Your task to perform on an android device: make emails show in primary in the gmail app Image 0: 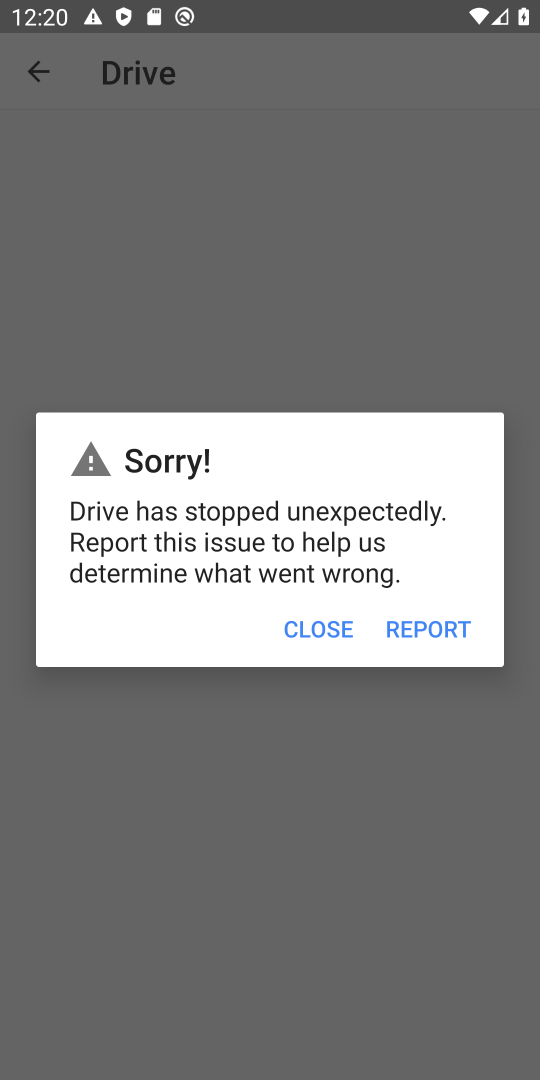
Step 0: press home button
Your task to perform on an android device: make emails show in primary in the gmail app Image 1: 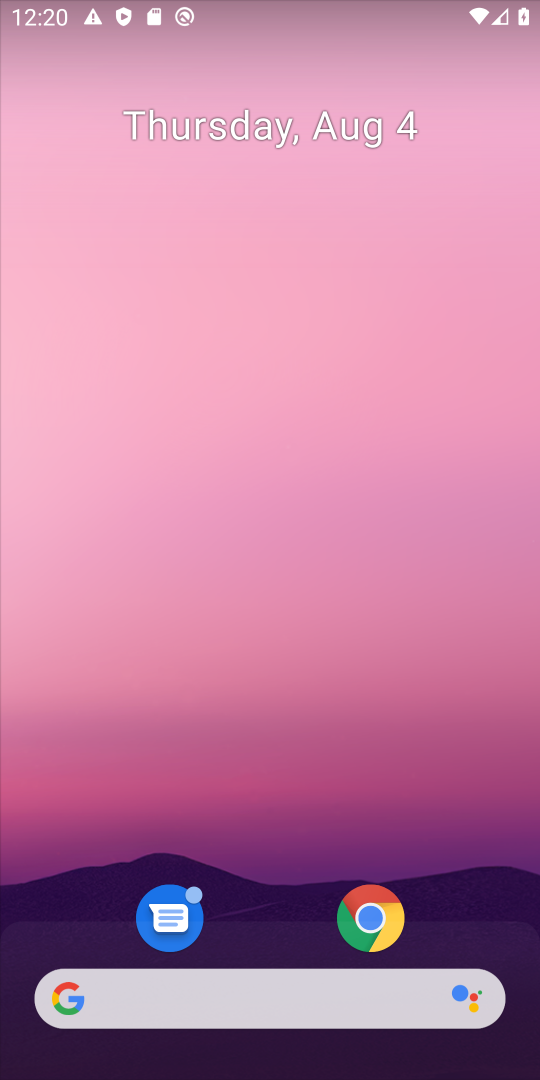
Step 1: drag from (269, 911) to (299, 171)
Your task to perform on an android device: make emails show in primary in the gmail app Image 2: 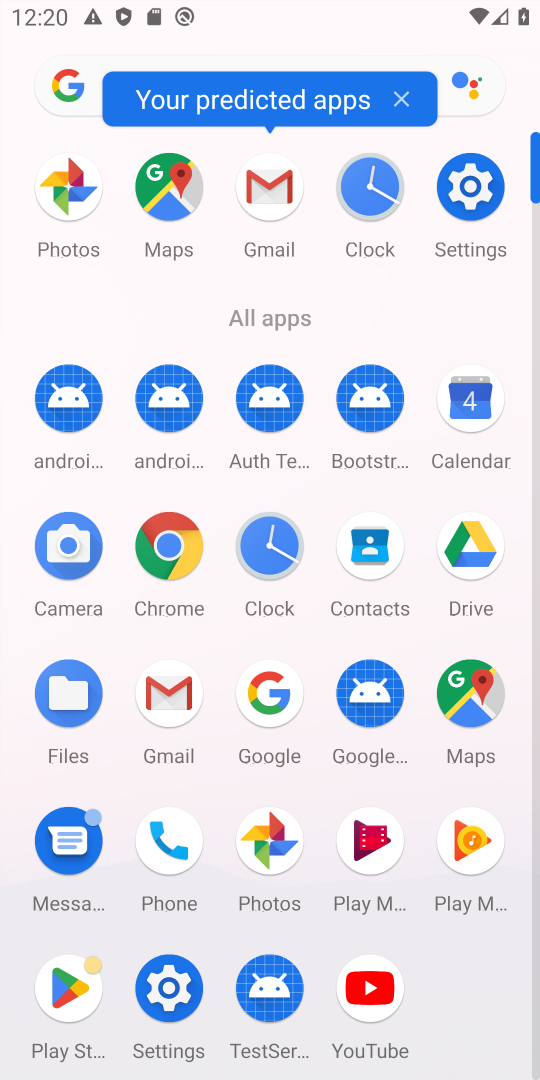
Step 2: click (263, 176)
Your task to perform on an android device: make emails show in primary in the gmail app Image 3: 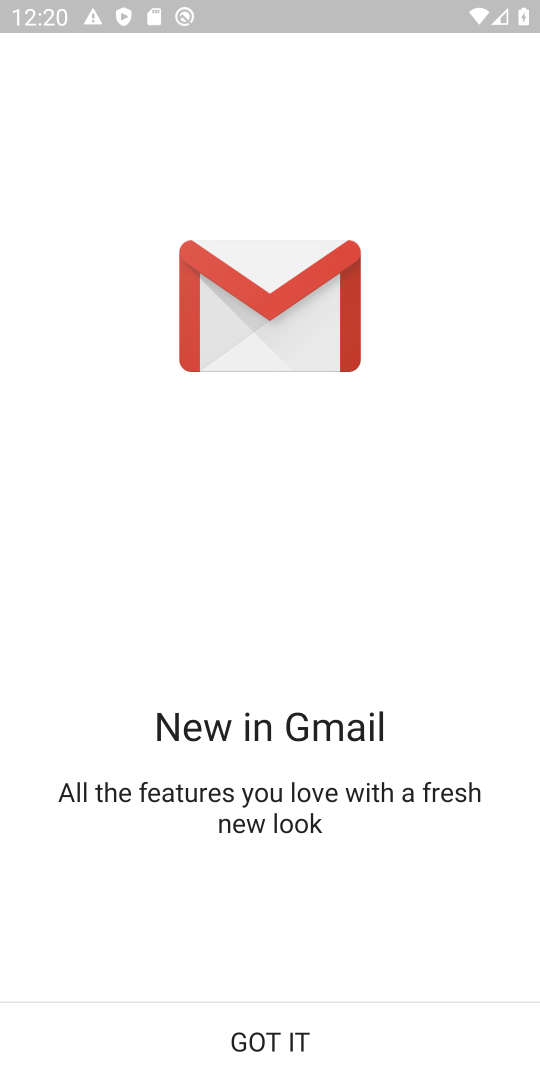
Step 3: click (339, 1034)
Your task to perform on an android device: make emails show in primary in the gmail app Image 4: 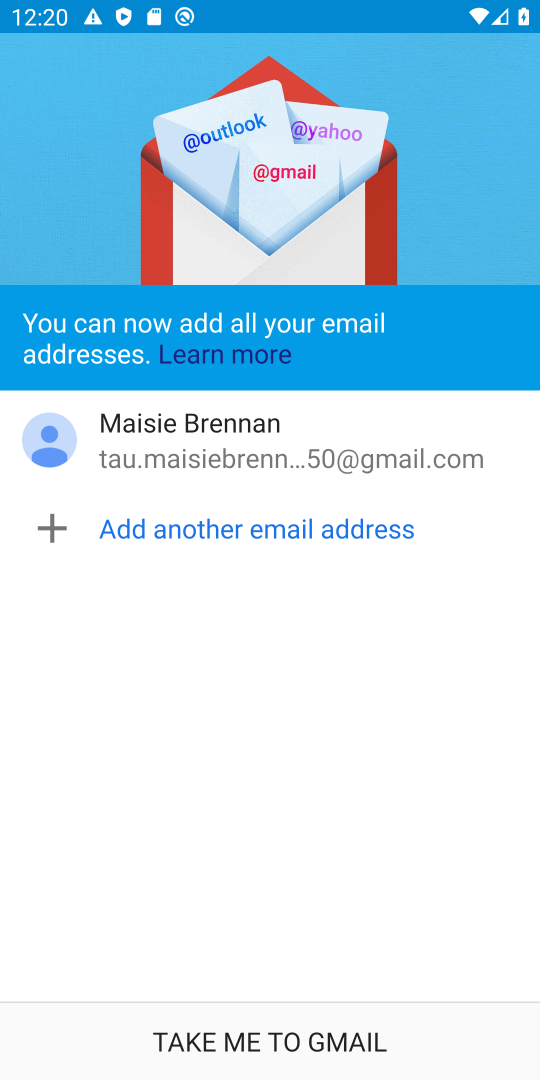
Step 4: click (339, 1034)
Your task to perform on an android device: make emails show in primary in the gmail app Image 5: 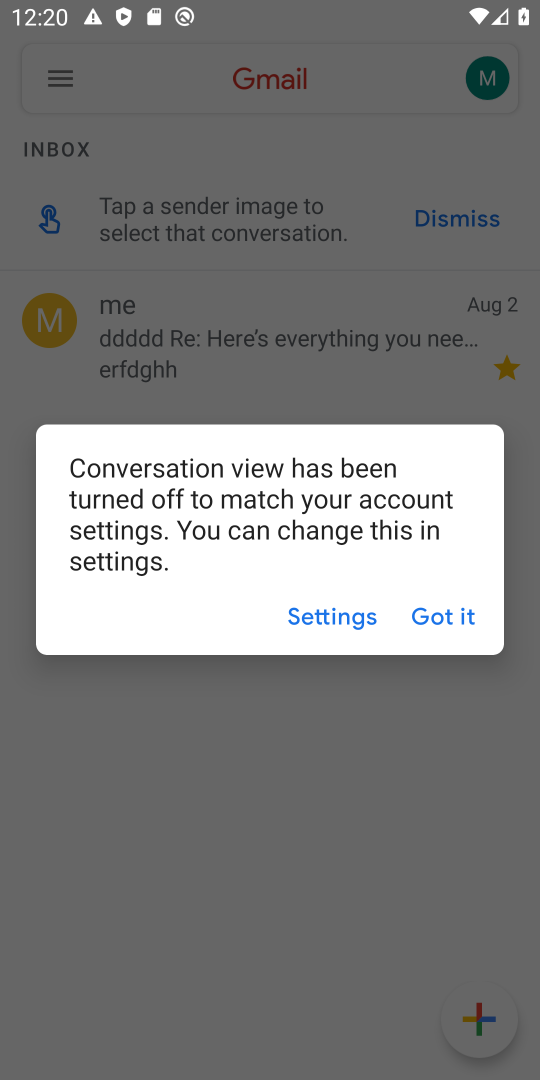
Step 5: click (446, 634)
Your task to perform on an android device: make emails show in primary in the gmail app Image 6: 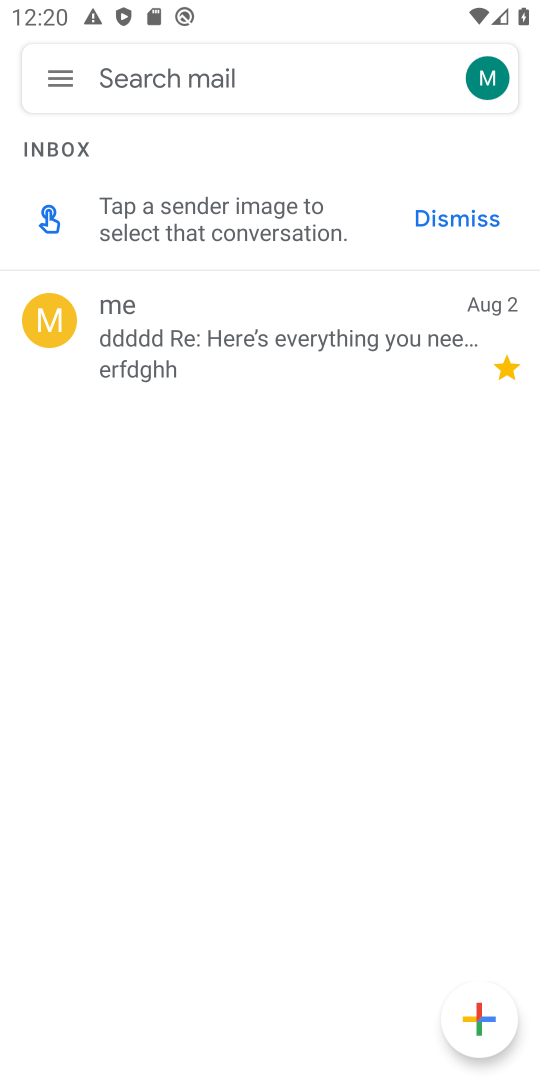
Step 6: click (55, 85)
Your task to perform on an android device: make emails show in primary in the gmail app Image 7: 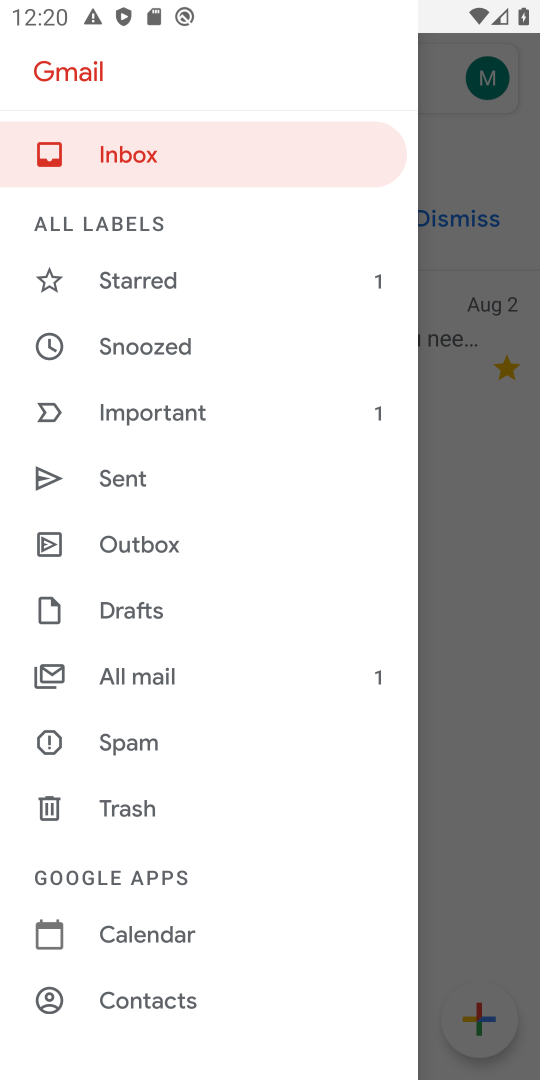
Step 7: drag from (190, 961) to (243, 340)
Your task to perform on an android device: make emails show in primary in the gmail app Image 8: 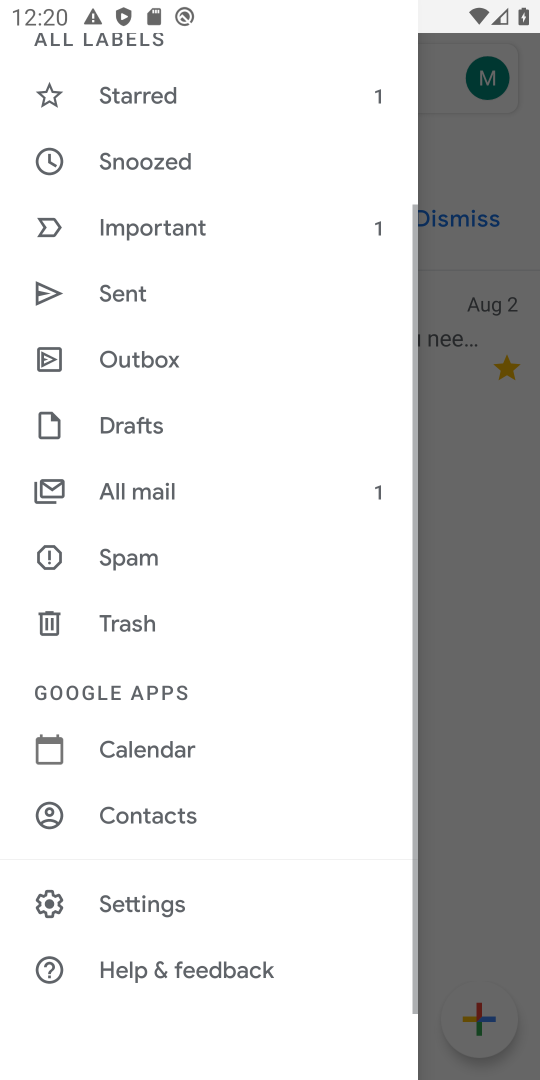
Step 8: click (177, 922)
Your task to perform on an android device: make emails show in primary in the gmail app Image 9: 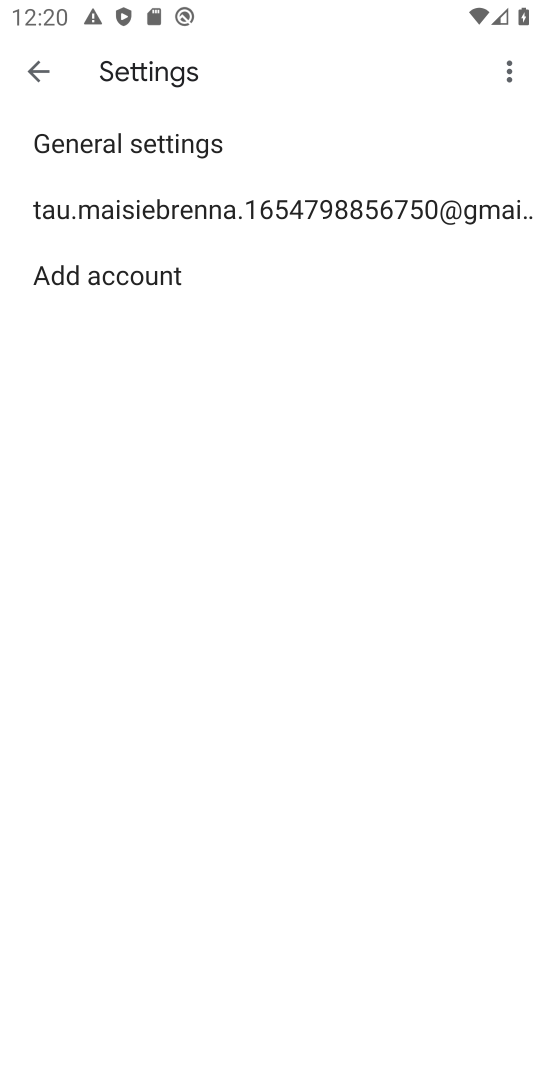
Step 9: click (211, 195)
Your task to perform on an android device: make emails show in primary in the gmail app Image 10: 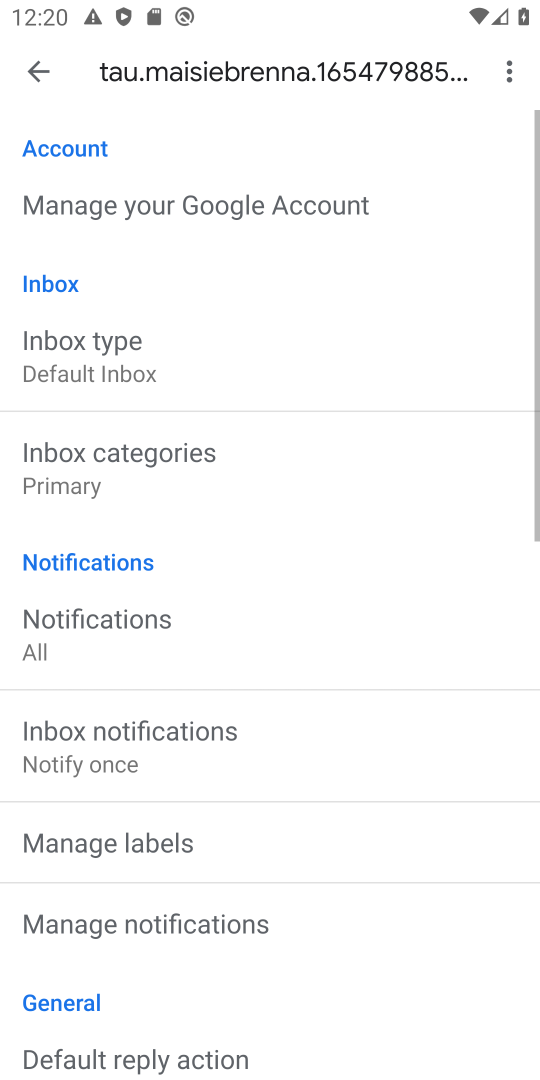
Step 10: click (193, 383)
Your task to perform on an android device: make emails show in primary in the gmail app Image 11: 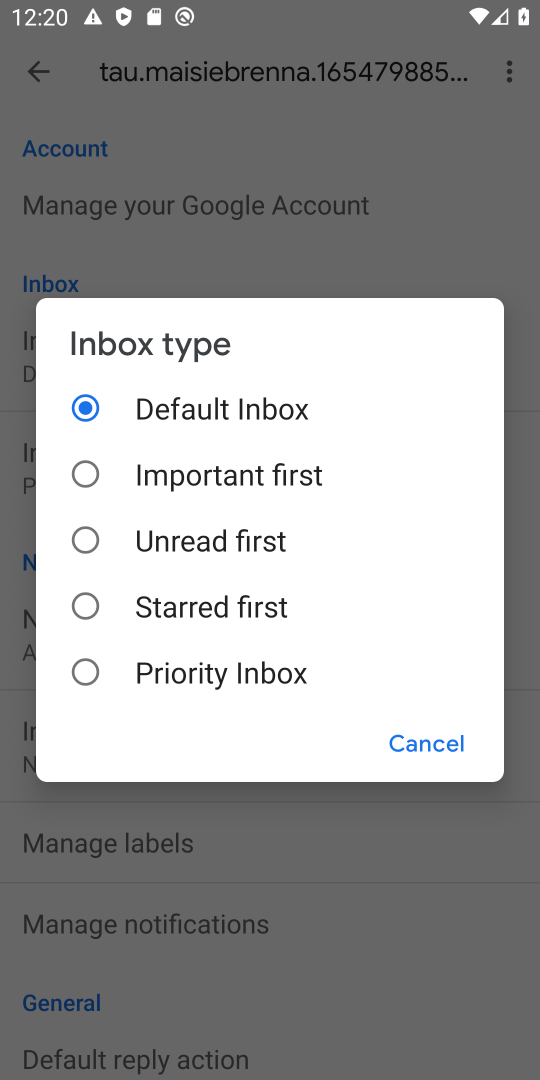
Step 11: task complete